Your task to perform on an android device: turn off improve location accuracy Image 0: 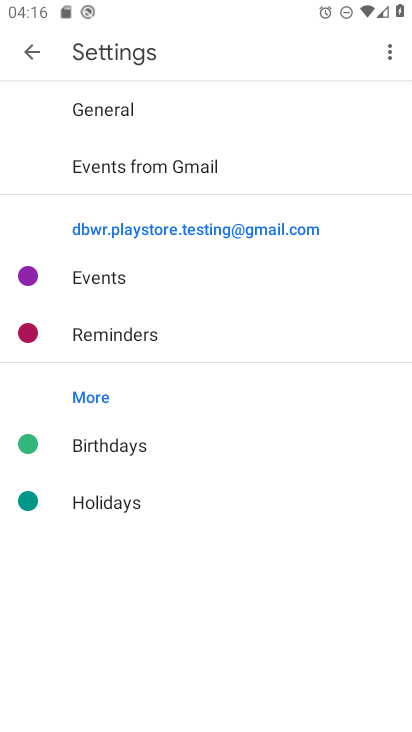
Step 0: drag from (325, 609) to (306, 474)
Your task to perform on an android device: turn off improve location accuracy Image 1: 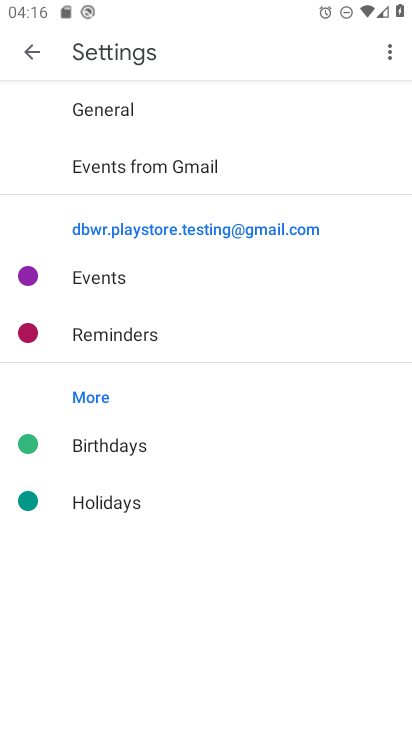
Step 1: press home button
Your task to perform on an android device: turn off improve location accuracy Image 2: 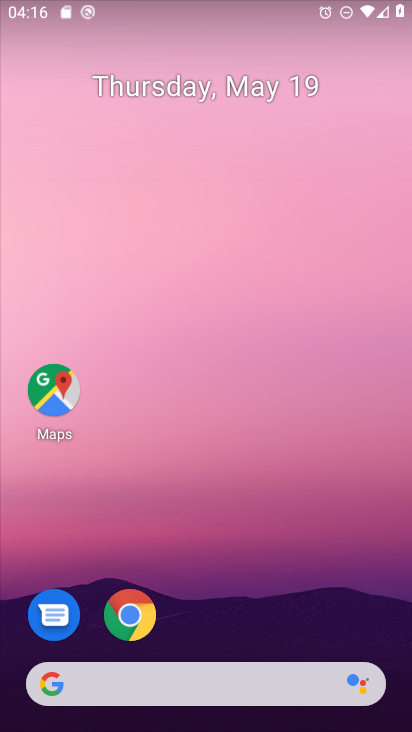
Step 2: drag from (323, 594) to (249, 68)
Your task to perform on an android device: turn off improve location accuracy Image 3: 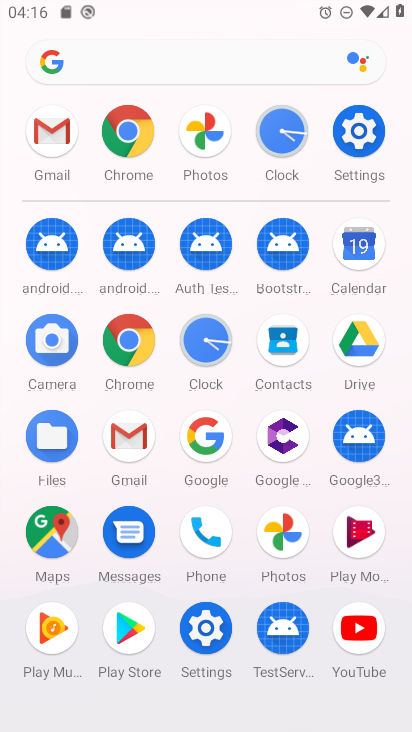
Step 3: click (372, 141)
Your task to perform on an android device: turn off improve location accuracy Image 4: 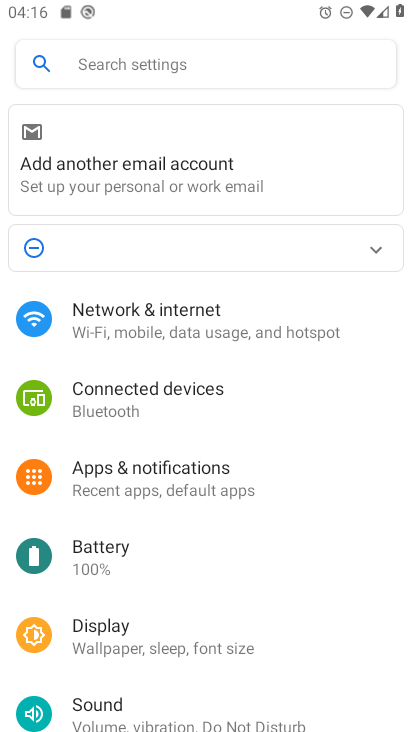
Step 4: drag from (240, 689) to (207, 168)
Your task to perform on an android device: turn off improve location accuracy Image 5: 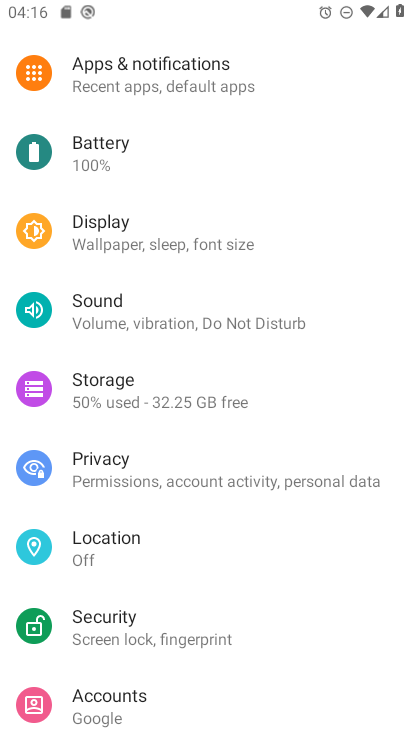
Step 5: click (202, 570)
Your task to perform on an android device: turn off improve location accuracy Image 6: 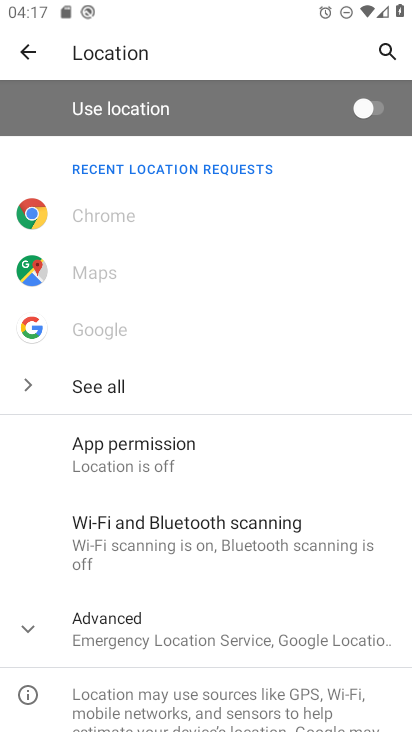
Step 6: drag from (260, 618) to (211, 247)
Your task to perform on an android device: turn off improve location accuracy Image 7: 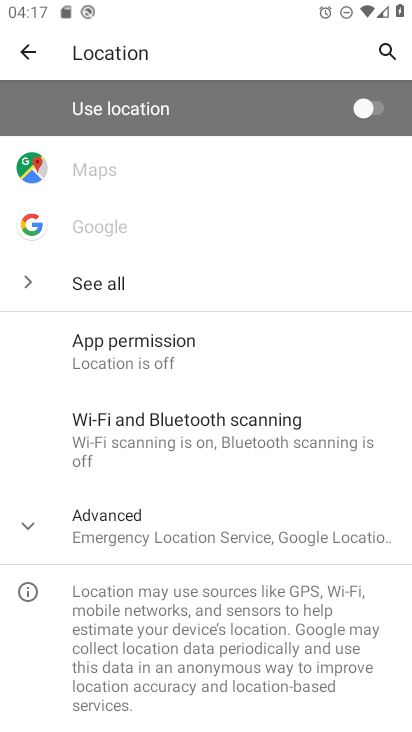
Step 7: click (270, 537)
Your task to perform on an android device: turn off improve location accuracy Image 8: 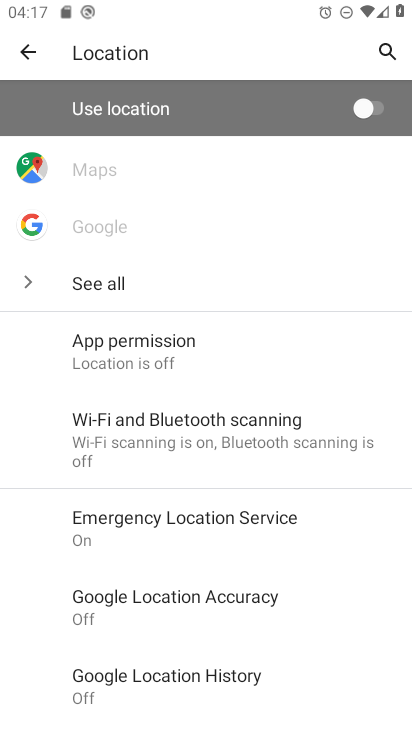
Step 8: click (303, 620)
Your task to perform on an android device: turn off improve location accuracy Image 9: 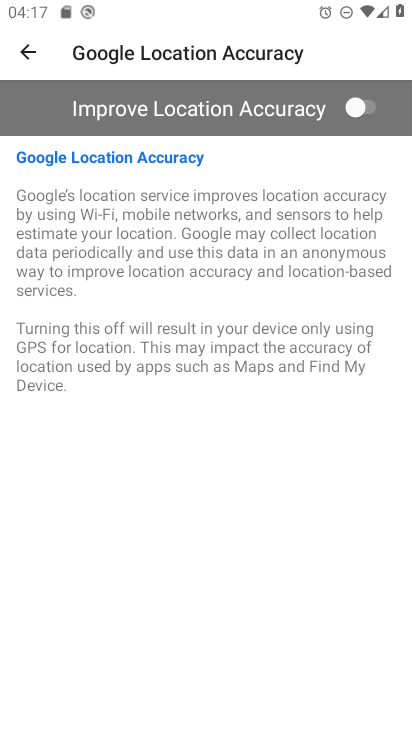
Step 9: task complete